Your task to perform on an android device: Go to notification settings Image 0: 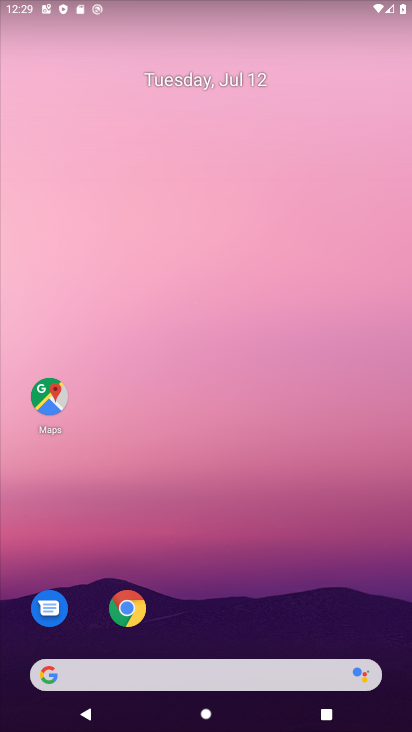
Step 0: drag from (230, 14) to (247, 565)
Your task to perform on an android device: Go to notification settings Image 1: 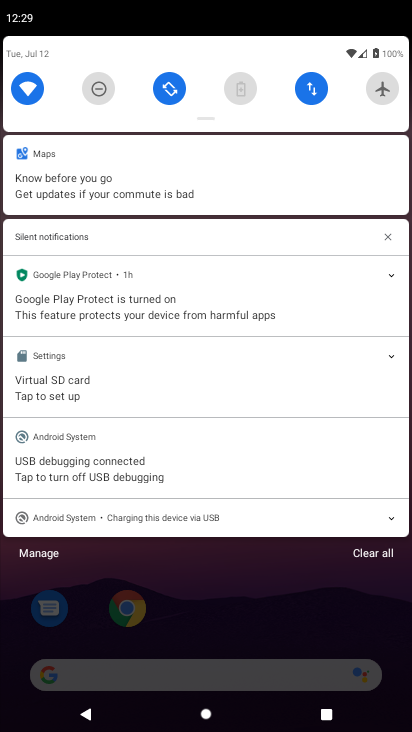
Step 1: drag from (209, 54) to (284, 538)
Your task to perform on an android device: Go to notification settings Image 2: 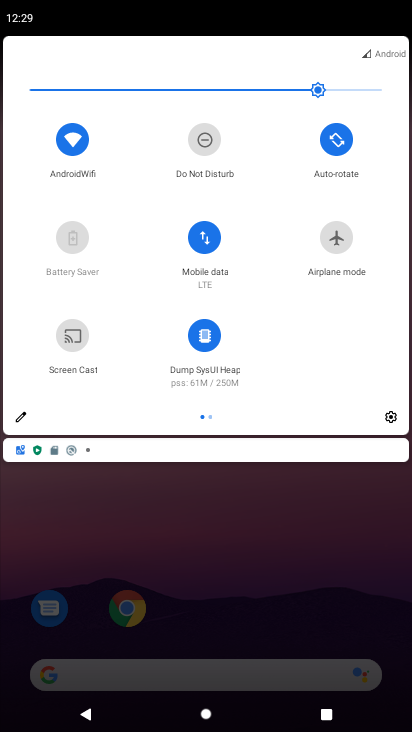
Step 2: click (398, 418)
Your task to perform on an android device: Go to notification settings Image 3: 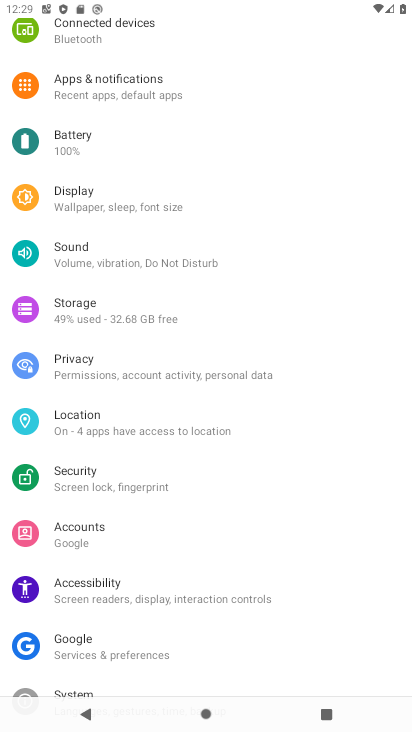
Step 3: click (92, 95)
Your task to perform on an android device: Go to notification settings Image 4: 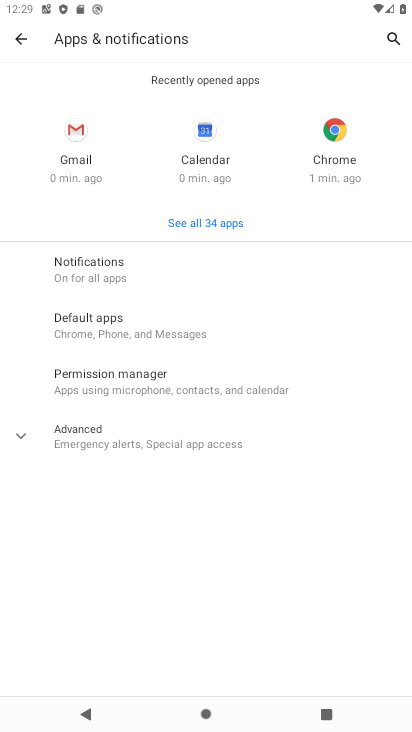
Step 4: task complete